Your task to perform on an android device: Check the news Image 0: 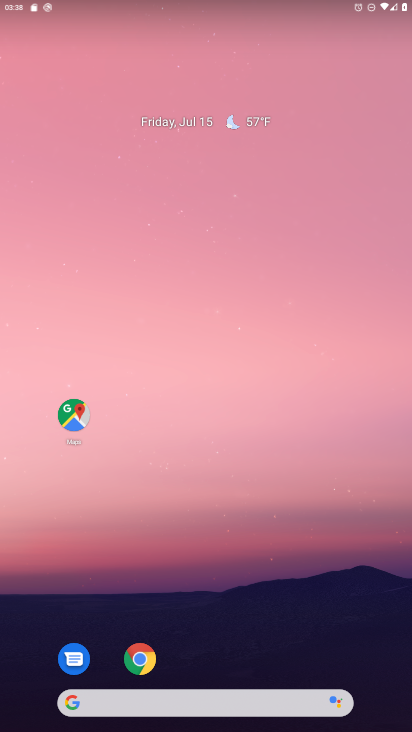
Step 0: drag from (209, 652) to (229, 42)
Your task to perform on an android device: Check the news Image 1: 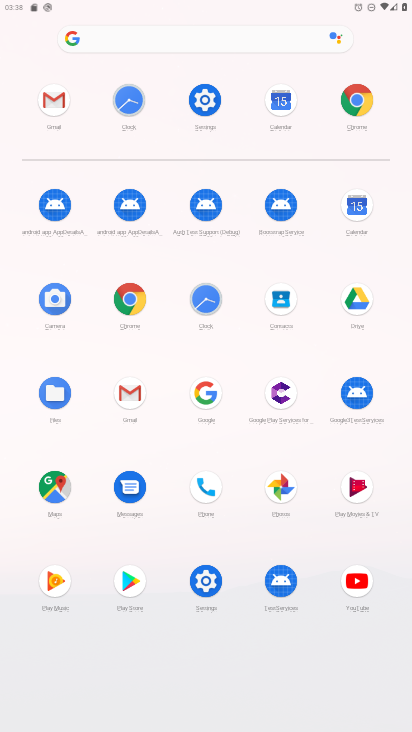
Step 1: click (188, 32)
Your task to perform on an android device: Check the news Image 2: 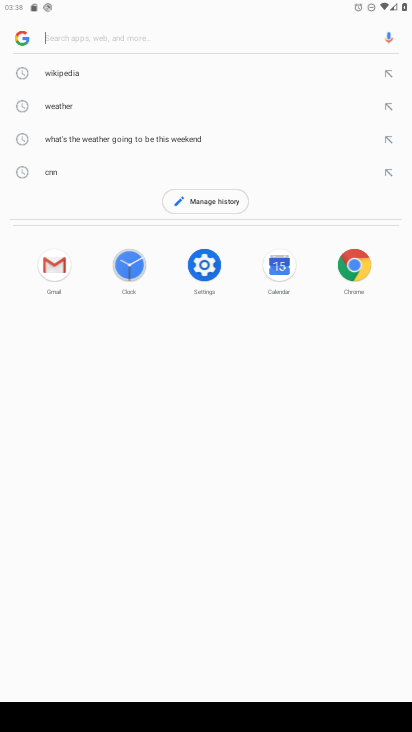
Step 2: type "news"
Your task to perform on an android device: Check the news Image 3: 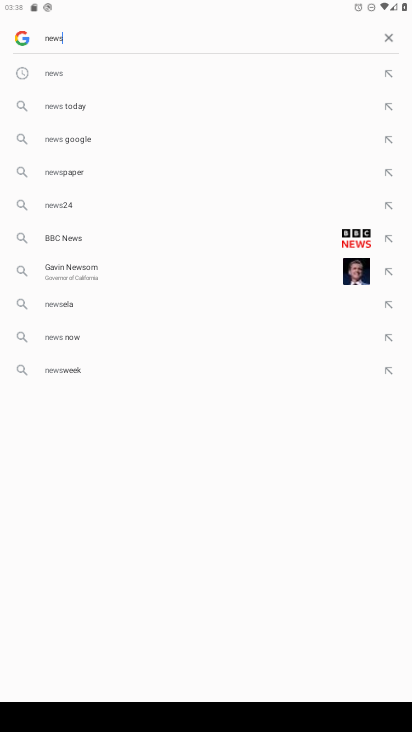
Step 3: click (70, 73)
Your task to perform on an android device: Check the news Image 4: 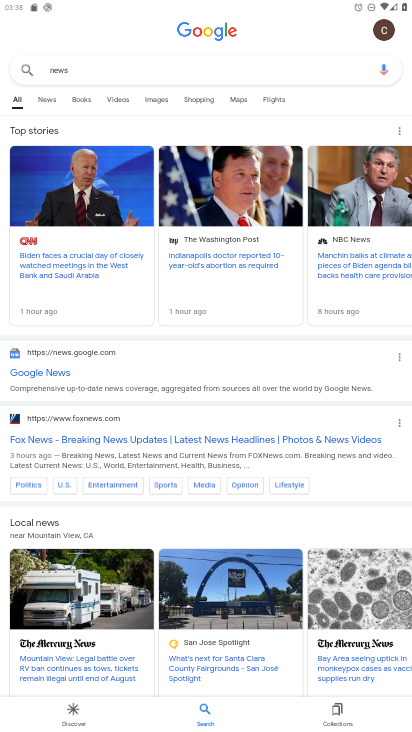
Step 4: task complete